Your task to perform on an android device: Go to settings Image 0: 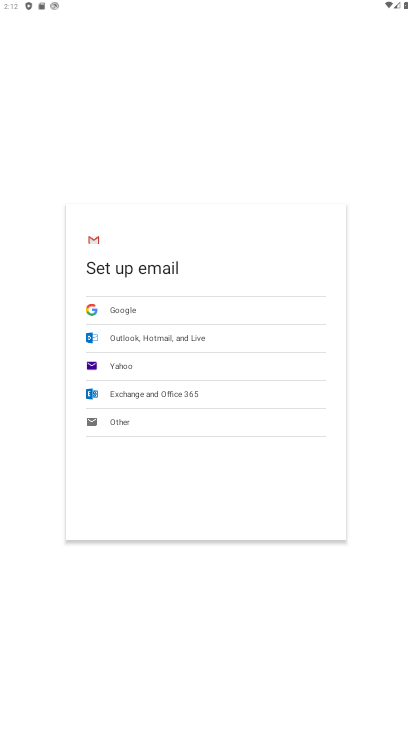
Step 0: press home button
Your task to perform on an android device: Go to settings Image 1: 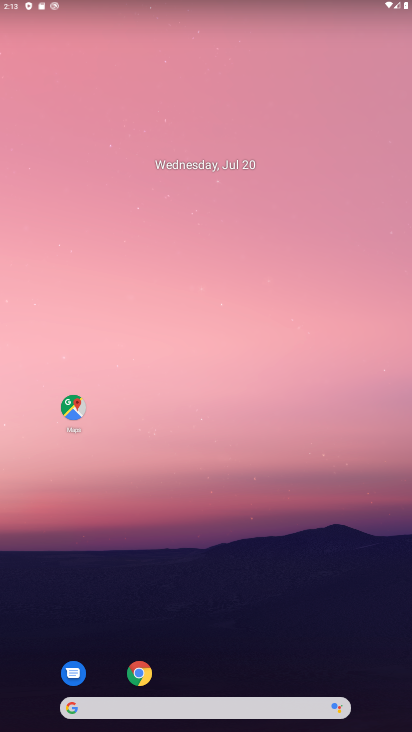
Step 1: drag from (212, 681) to (83, 8)
Your task to perform on an android device: Go to settings Image 2: 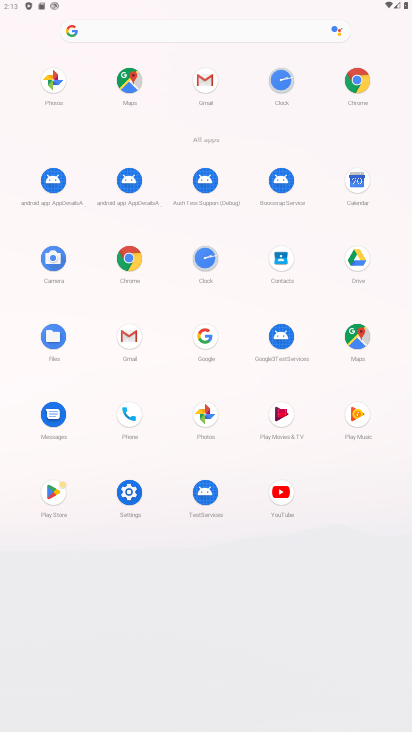
Step 2: click (138, 516)
Your task to perform on an android device: Go to settings Image 3: 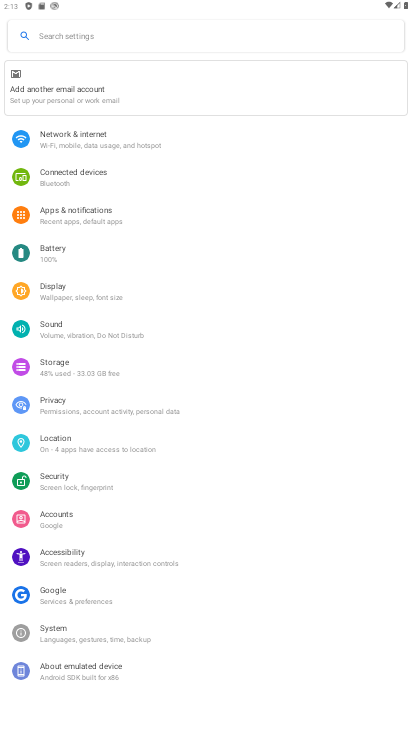
Step 3: task complete